Your task to perform on an android device: Go to ESPN.com Image 0: 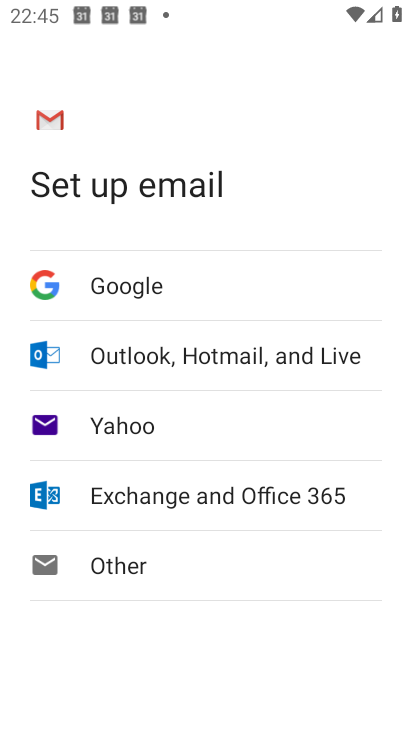
Step 0: press home button
Your task to perform on an android device: Go to ESPN.com Image 1: 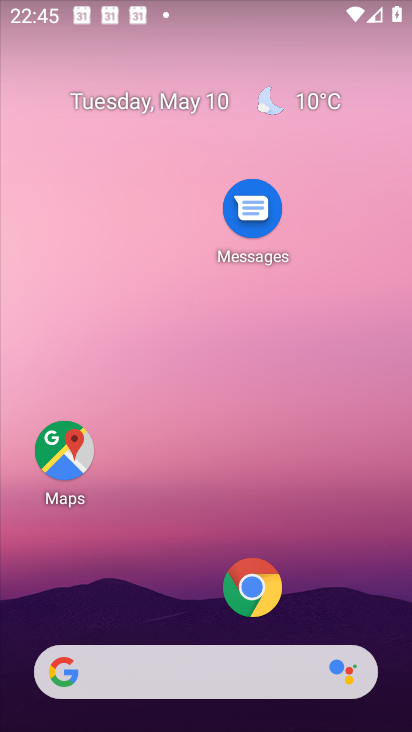
Step 1: click (164, 604)
Your task to perform on an android device: Go to ESPN.com Image 2: 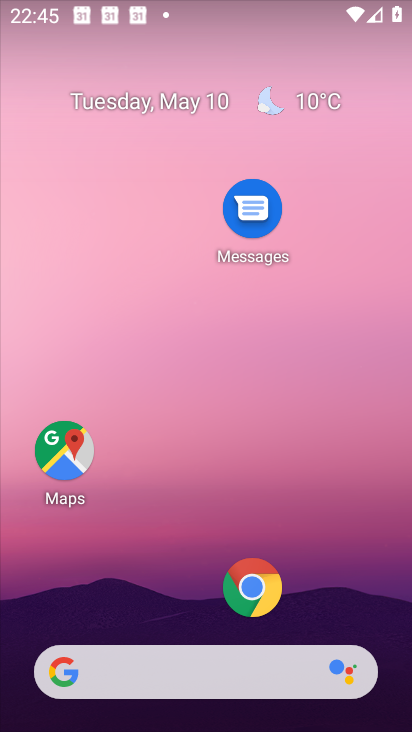
Step 2: click (264, 582)
Your task to perform on an android device: Go to ESPN.com Image 3: 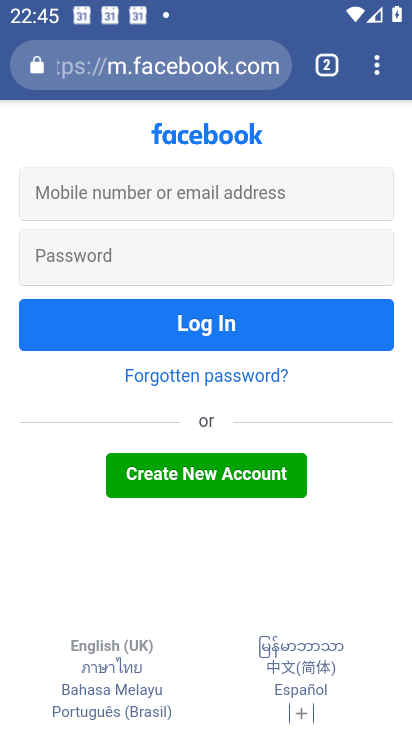
Step 3: click (154, 60)
Your task to perform on an android device: Go to ESPN.com Image 4: 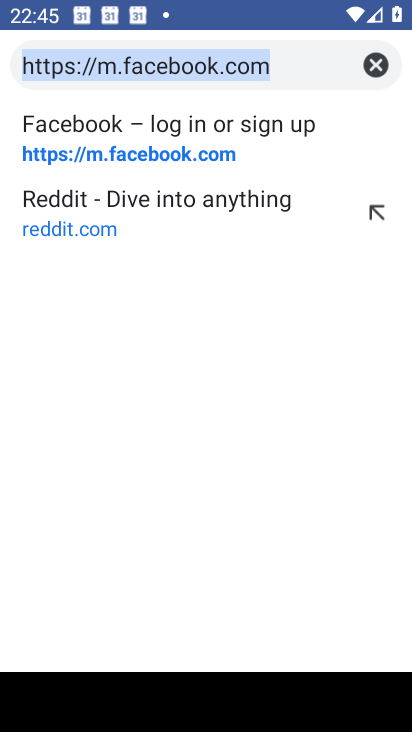
Step 4: type "ESPN.com"
Your task to perform on an android device: Go to ESPN.com Image 5: 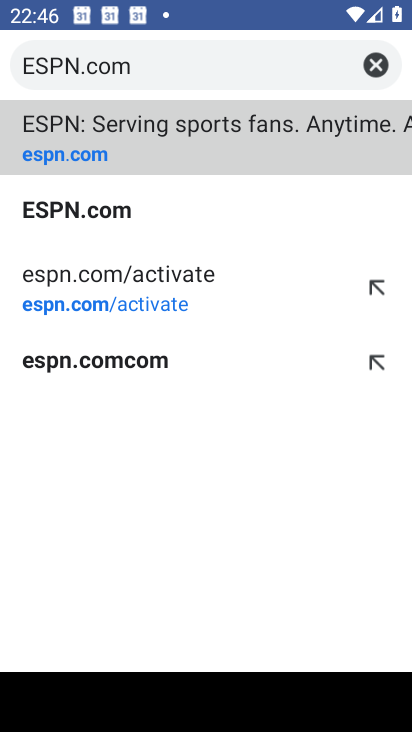
Step 5: click (145, 199)
Your task to perform on an android device: Go to ESPN.com Image 6: 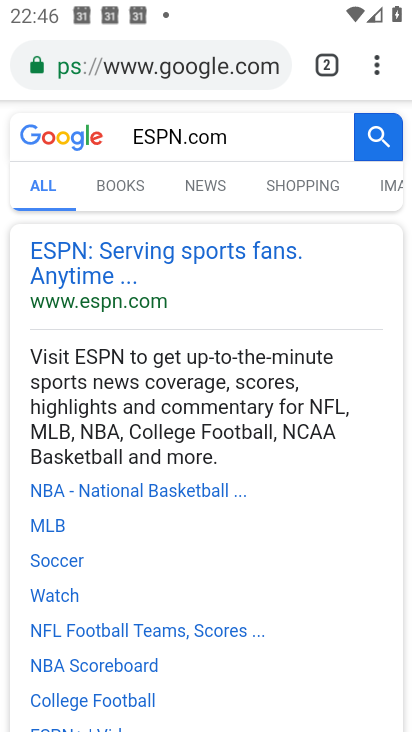
Step 6: task complete